Your task to perform on an android device: Open the phone app and click the voicemail tab. Image 0: 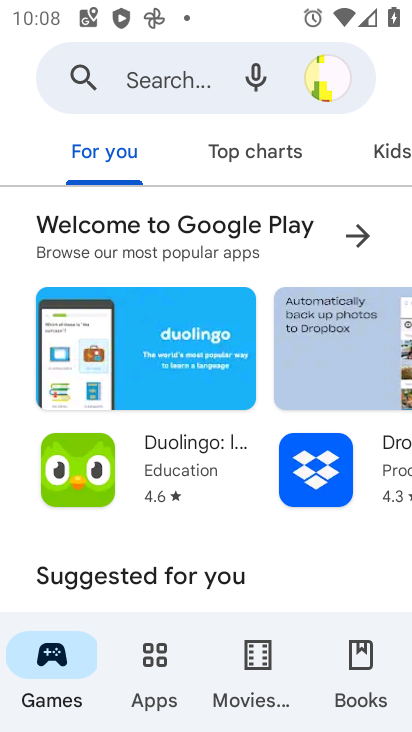
Step 0: press home button
Your task to perform on an android device: Open the phone app and click the voicemail tab. Image 1: 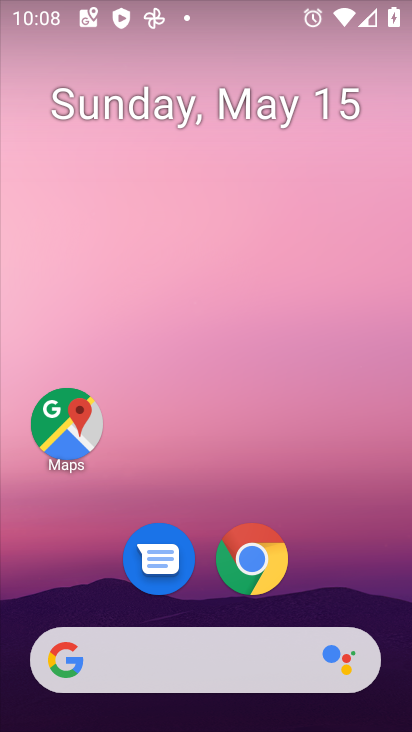
Step 1: drag from (355, 600) to (342, 308)
Your task to perform on an android device: Open the phone app and click the voicemail tab. Image 2: 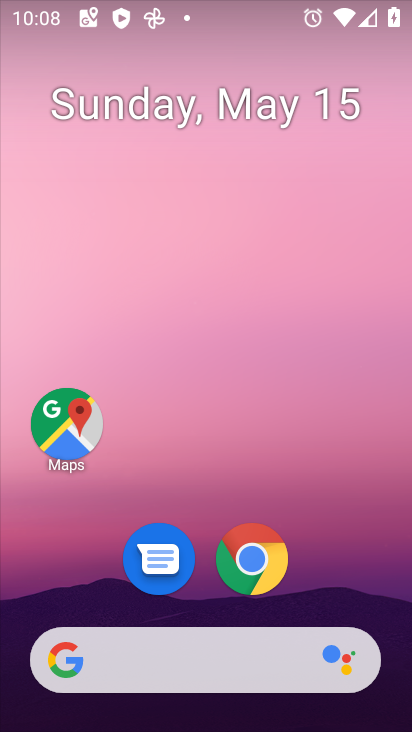
Step 2: drag from (353, 544) to (333, 2)
Your task to perform on an android device: Open the phone app and click the voicemail tab. Image 3: 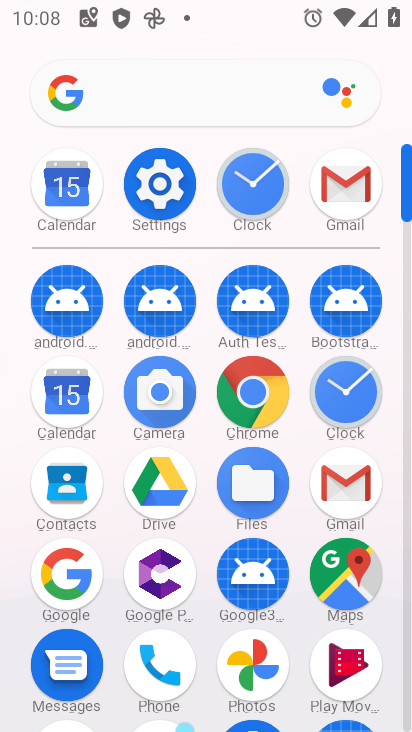
Step 3: click (166, 672)
Your task to perform on an android device: Open the phone app and click the voicemail tab. Image 4: 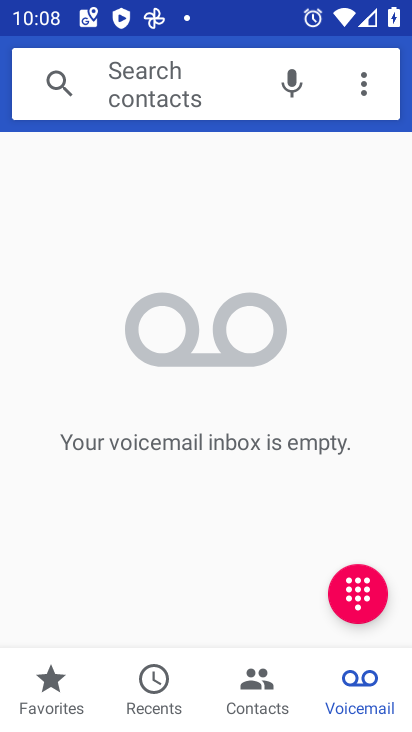
Step 4: click (358, 671)
Your task to perform on an android device: Open the phone app and click the voicemail tab. Image 5: 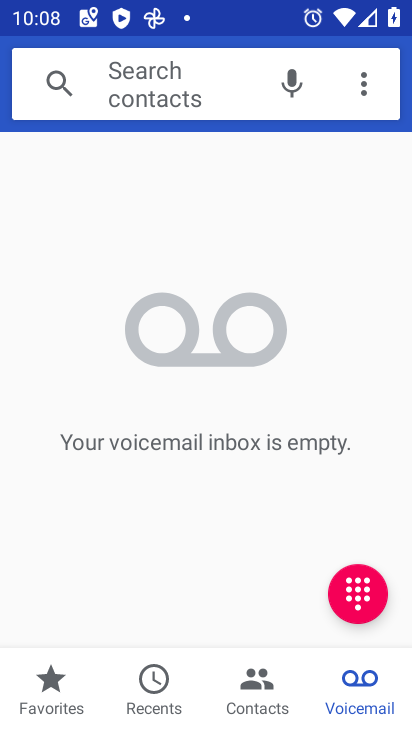
Step 5: task complete